Your task to perform on an android device: turn on notifications settings in the gmail app Image 0: 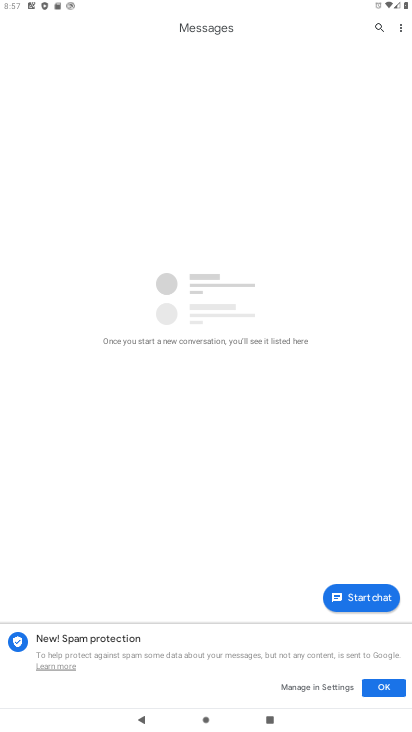
Step 0: press home button
Your task to perform on an android device: turn on notifications settings in the gmail app Image 1: 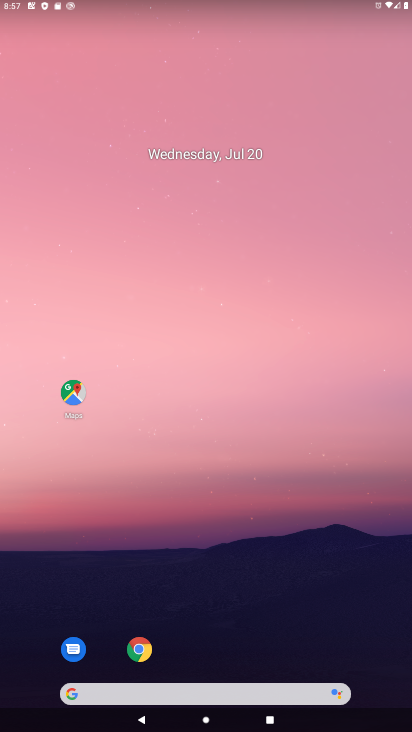
Step 1: drag from (142, 692) to (77, 194)
Your task to perform on an android device: turn on notifications settings in the gmail app Image 2: 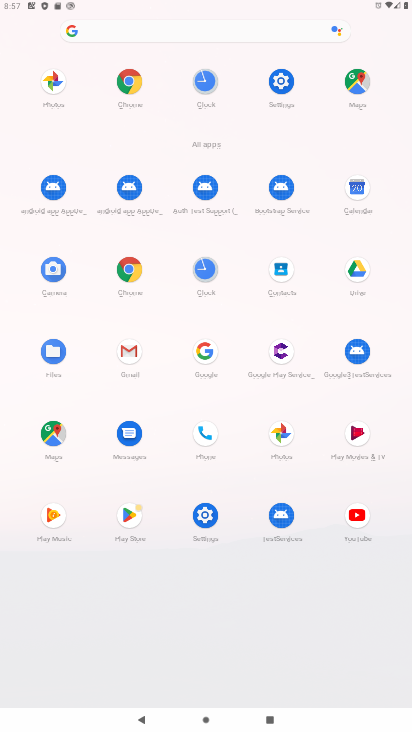
Step 2: click (136, 351)
Your task to perform on an android device: turn on notifications settings in the gmail app Image 3: 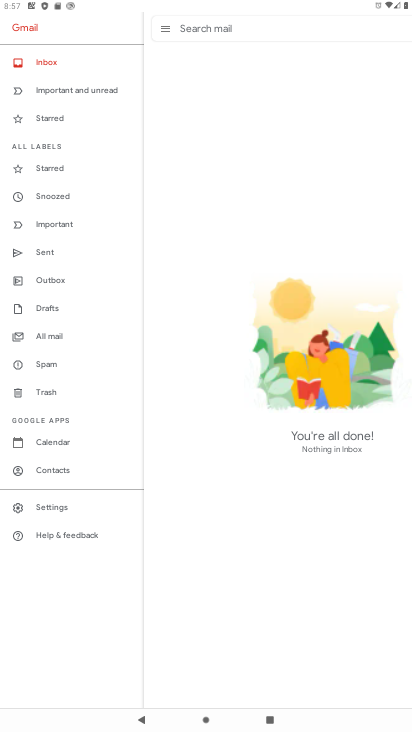
Step 3: click (52, 501)
Your task to perform on an android device: turn on notifications settings in the gmail app Image 4: 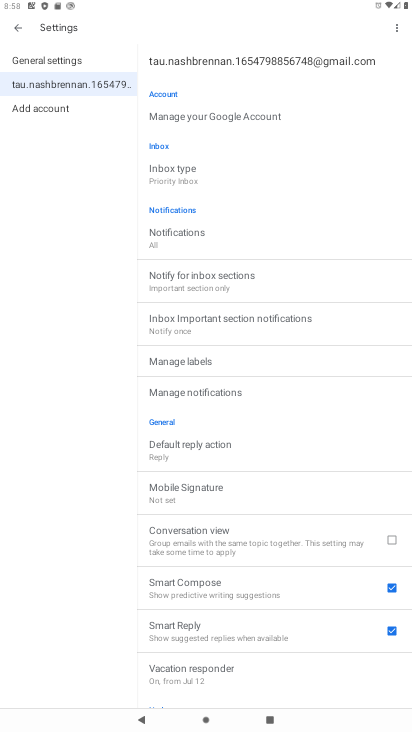
Step 4: click (197, 393)
Your task to perform on an android device: turn on notifications settings in the gmail app Image 5: 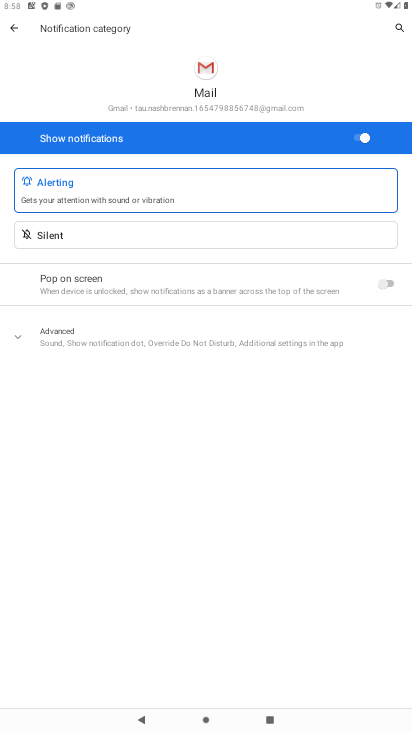
Step 5: task complete